Your task to perform on an android device: open app "Microsoft Outlook" (install if not already installed) Image 0: 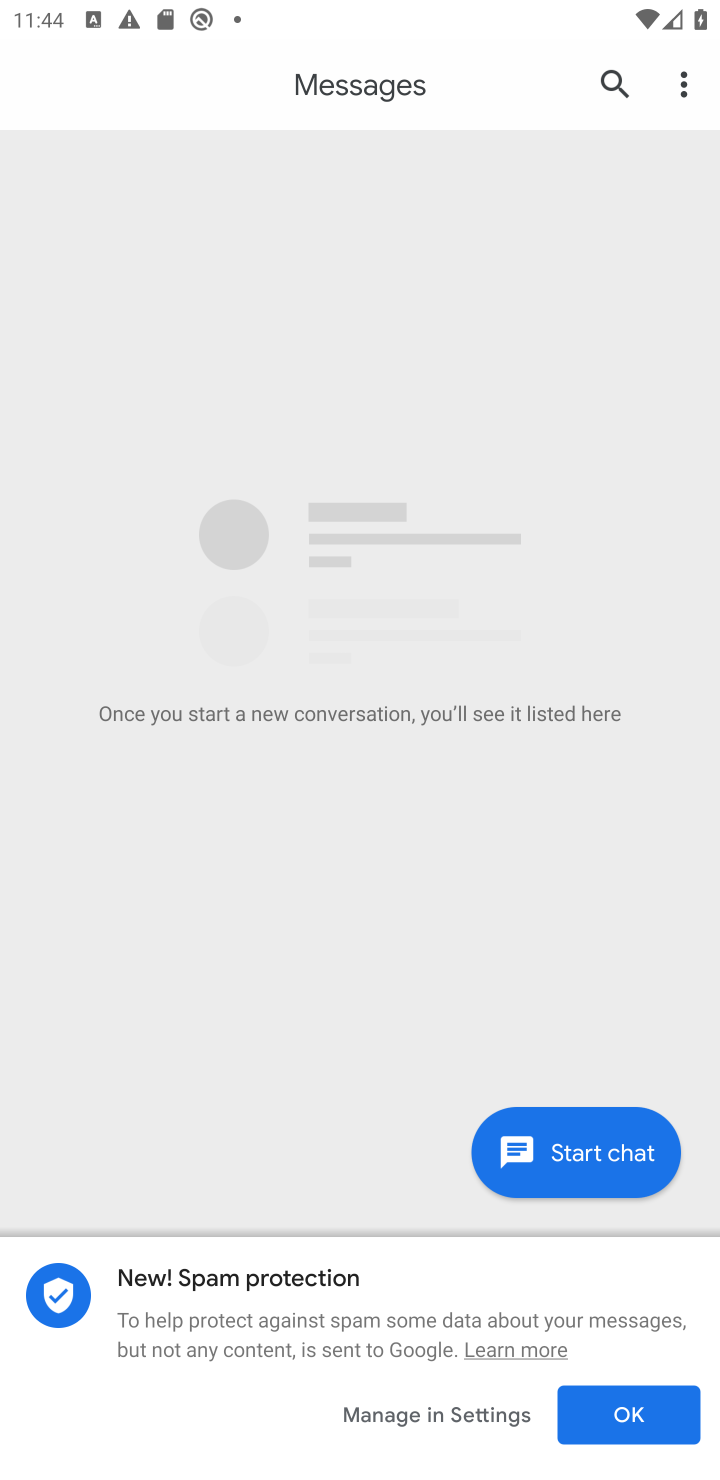
Step 0: press home button
Your task to perform on an android device: open app "Microsoft Outlook" (install if not already installed) Image 1: 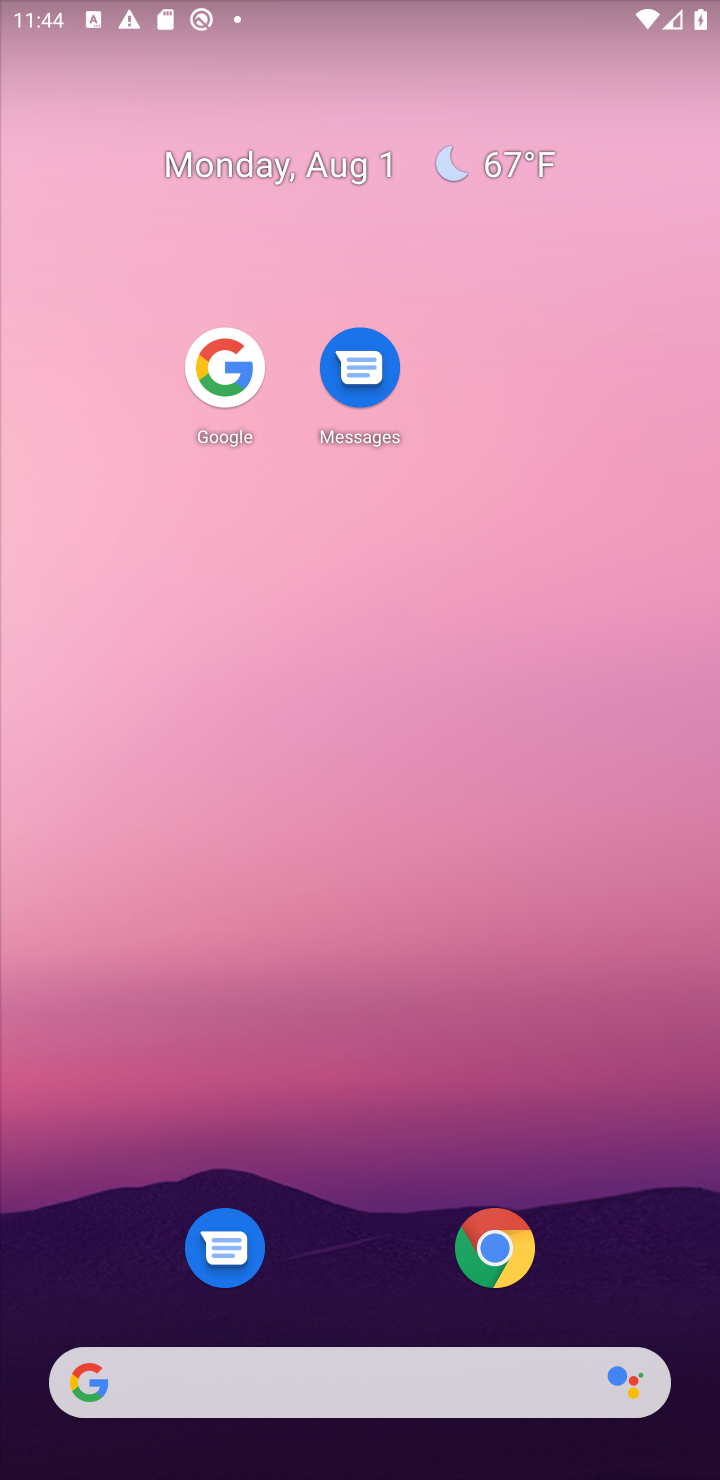
Step 1: drag from (610, 392) to (604, 293)
Your task to perform on an android device: open app "Microsoft Outlook" (install if not already installed) Image 2: 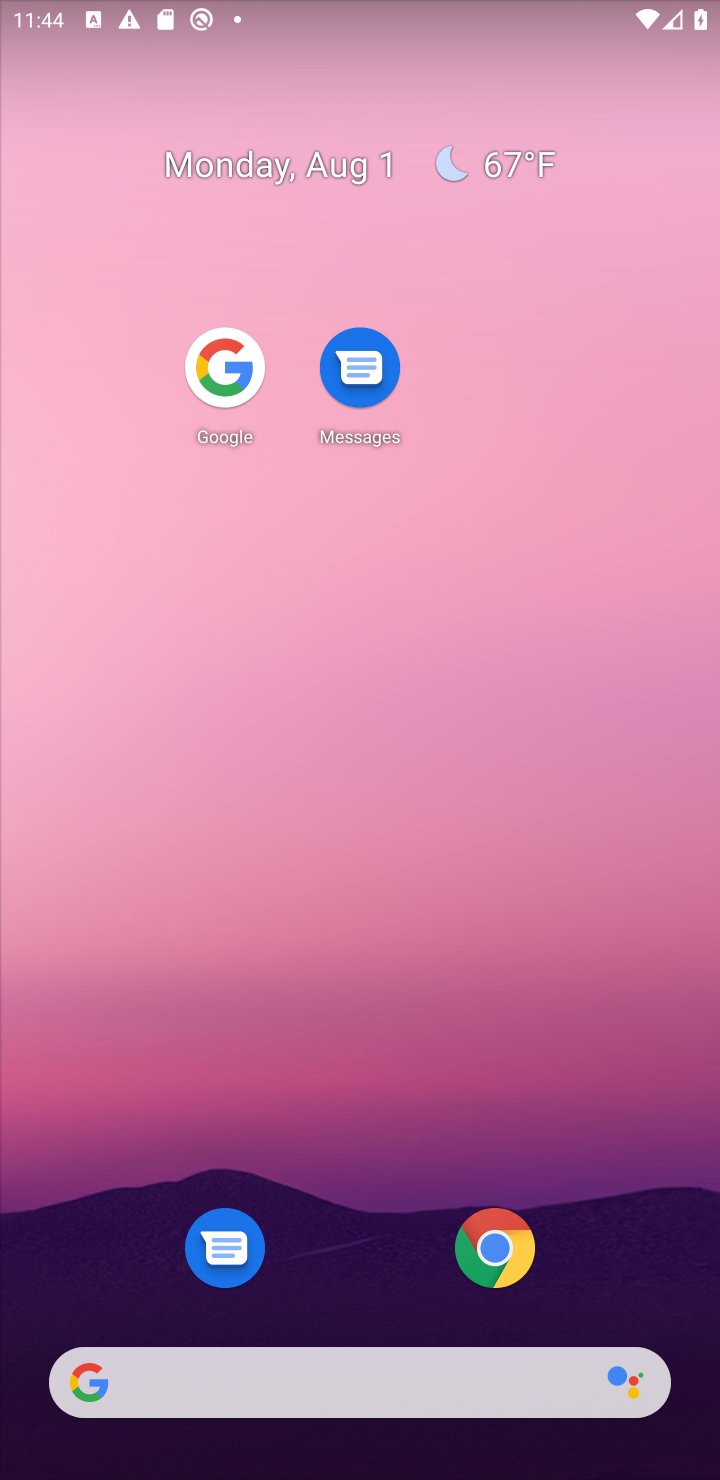
Step 2: drag from (601, 942) to (602, 25)
Your task to perform on an android device: open app "Microsoft Outlook" (install if not already installed) Image 3: 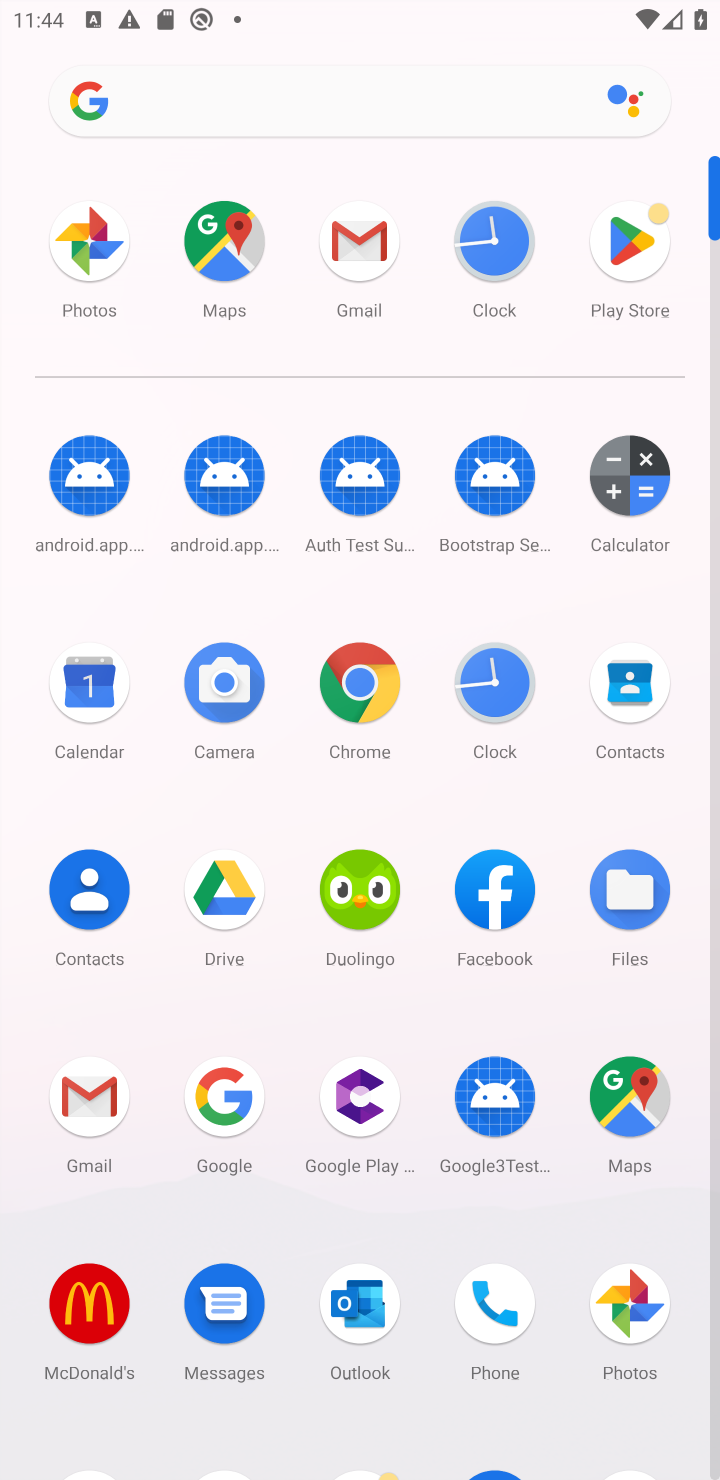
Step 3: drag from (423, 1213) to (441, 442)
Your task to perform on an android device: open app "Microsoft Outlook" (install if not already installed) Image 4: 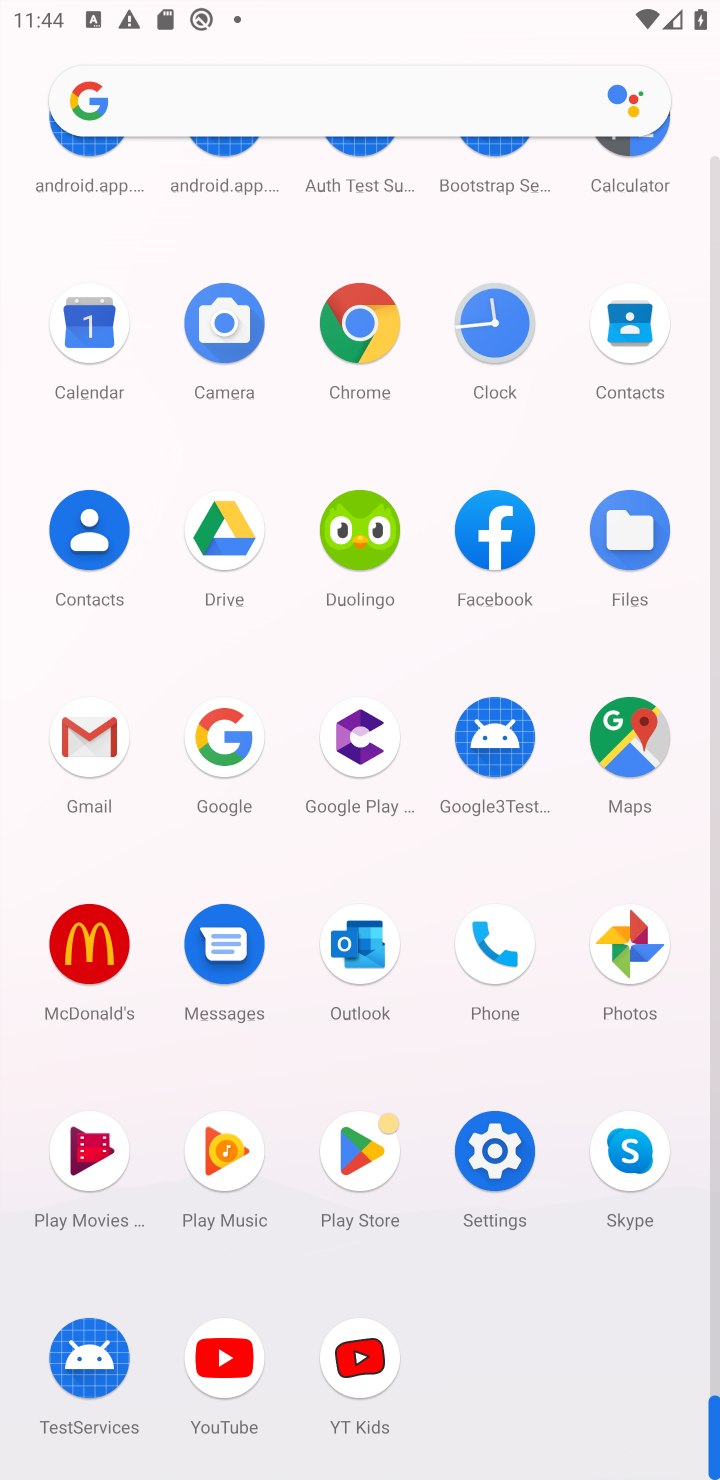
Step 4: click (371, 1128)
Your task to perform on an android device: open app "Microsoft Outlook" (install if not already installed) Image 5: 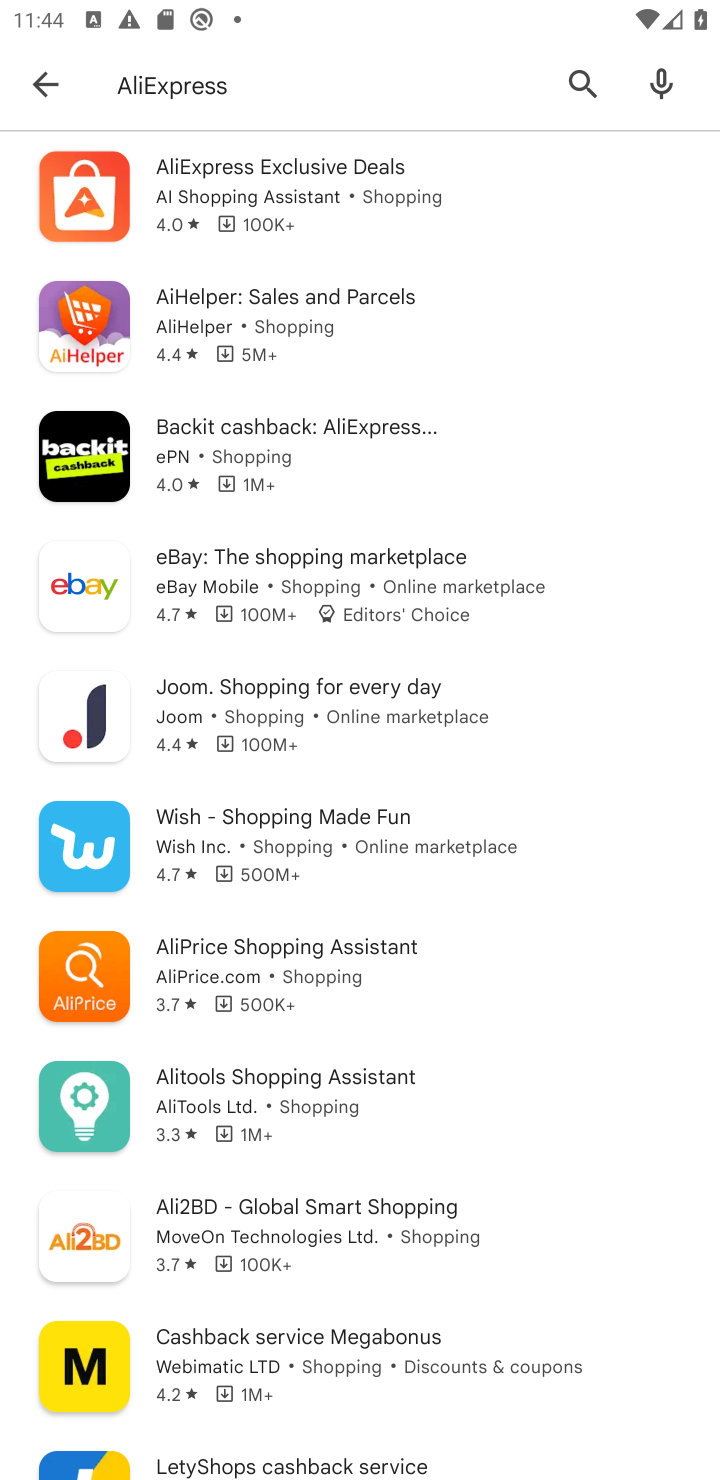
Step 5: click (329, 104)
Your task to perform on an android device: open app "Microsoft Outlook" (install if not already installed) Image 6: 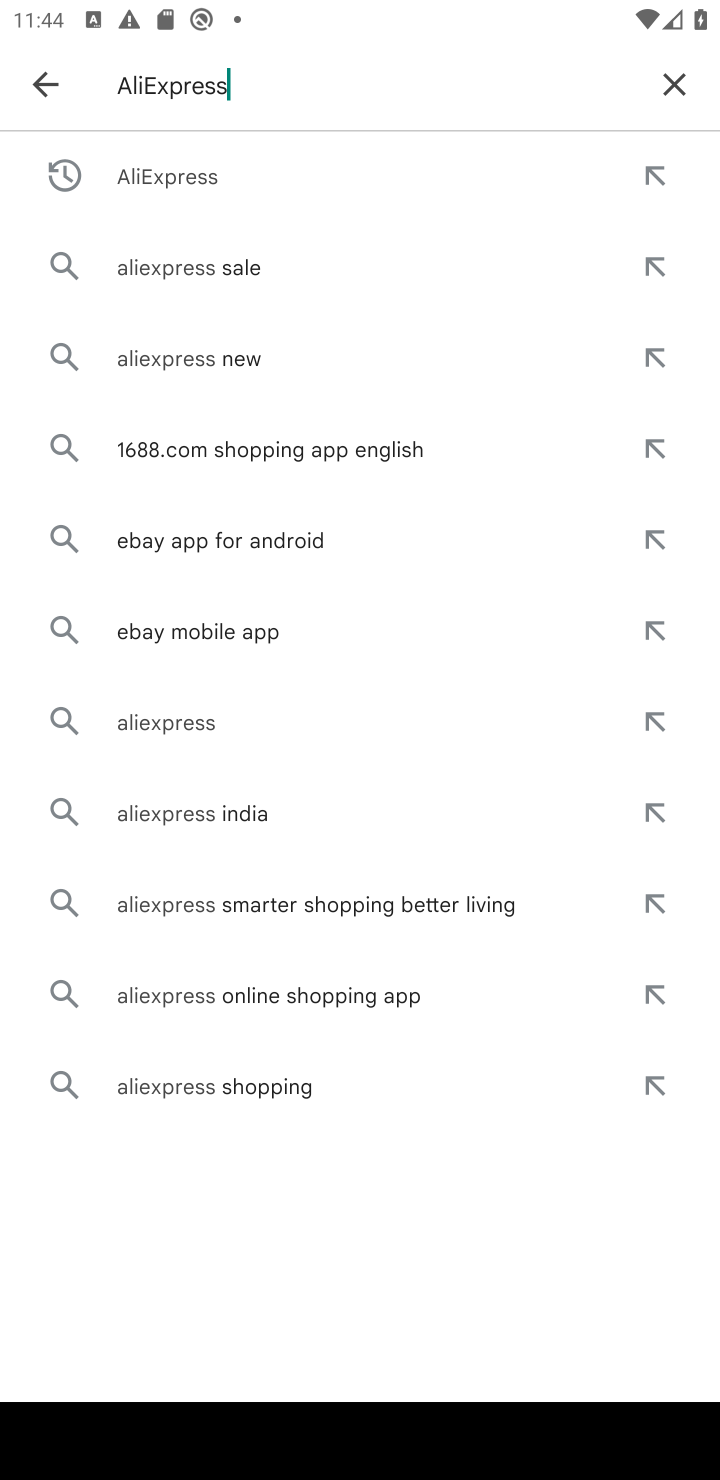
Step 6: click (679, 68)
Your task to perform on an android device: open app "Microsoft Outlook" (install if not already installed) Image 7: 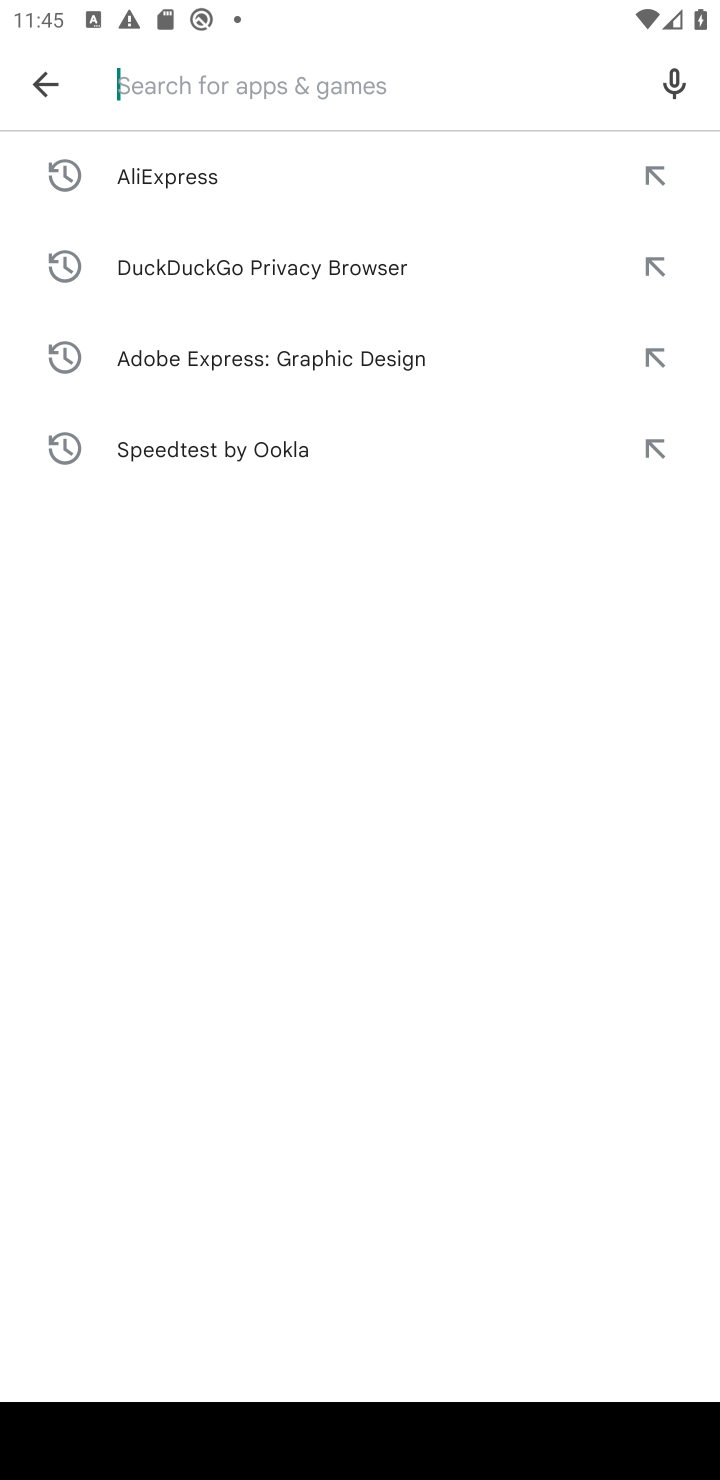
Step 7: type "Microsoft Outlook"
Your task to perform on an android device: open app "Microsoft Outlook" (install if not already installed) Image 8: 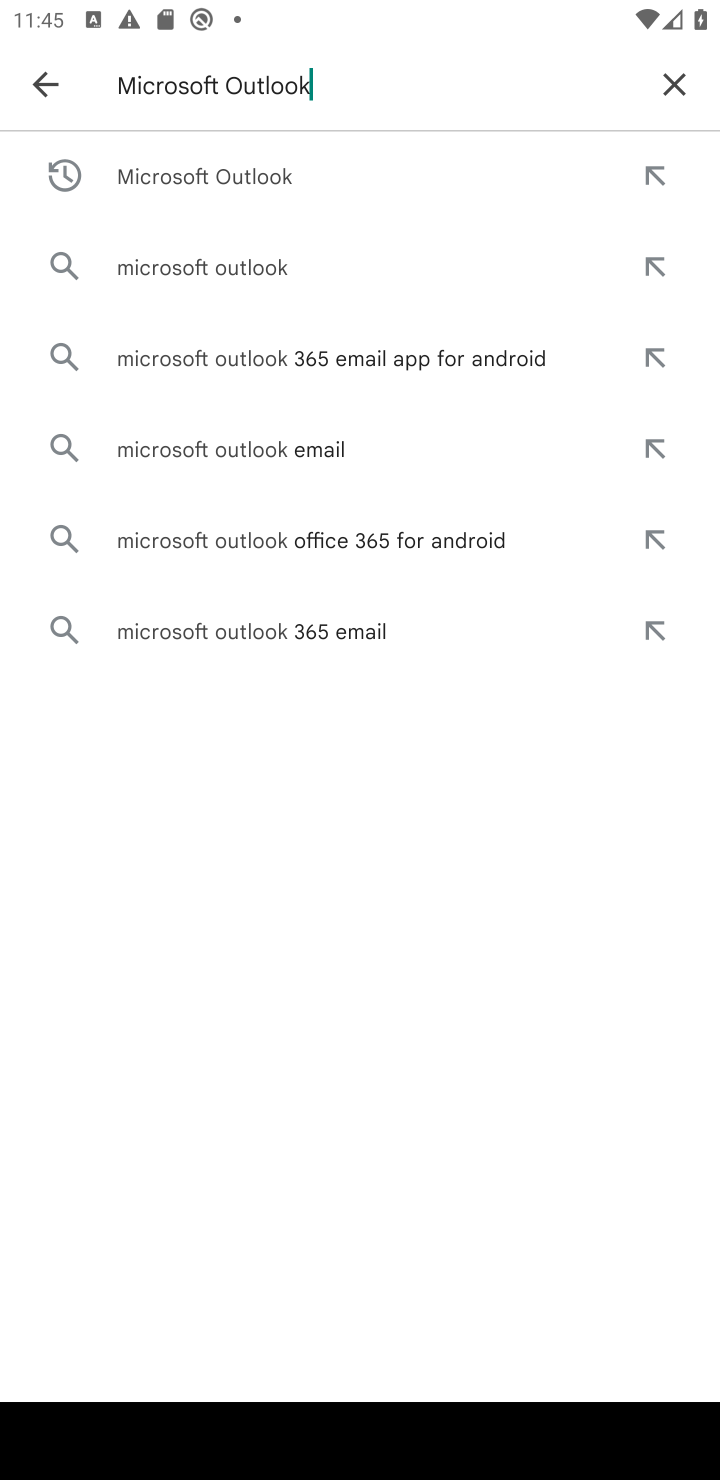
Step 8: press enter
Your task to perform on an android device: open app "Microsoft Outlook" (install if not already installed) Image 9: 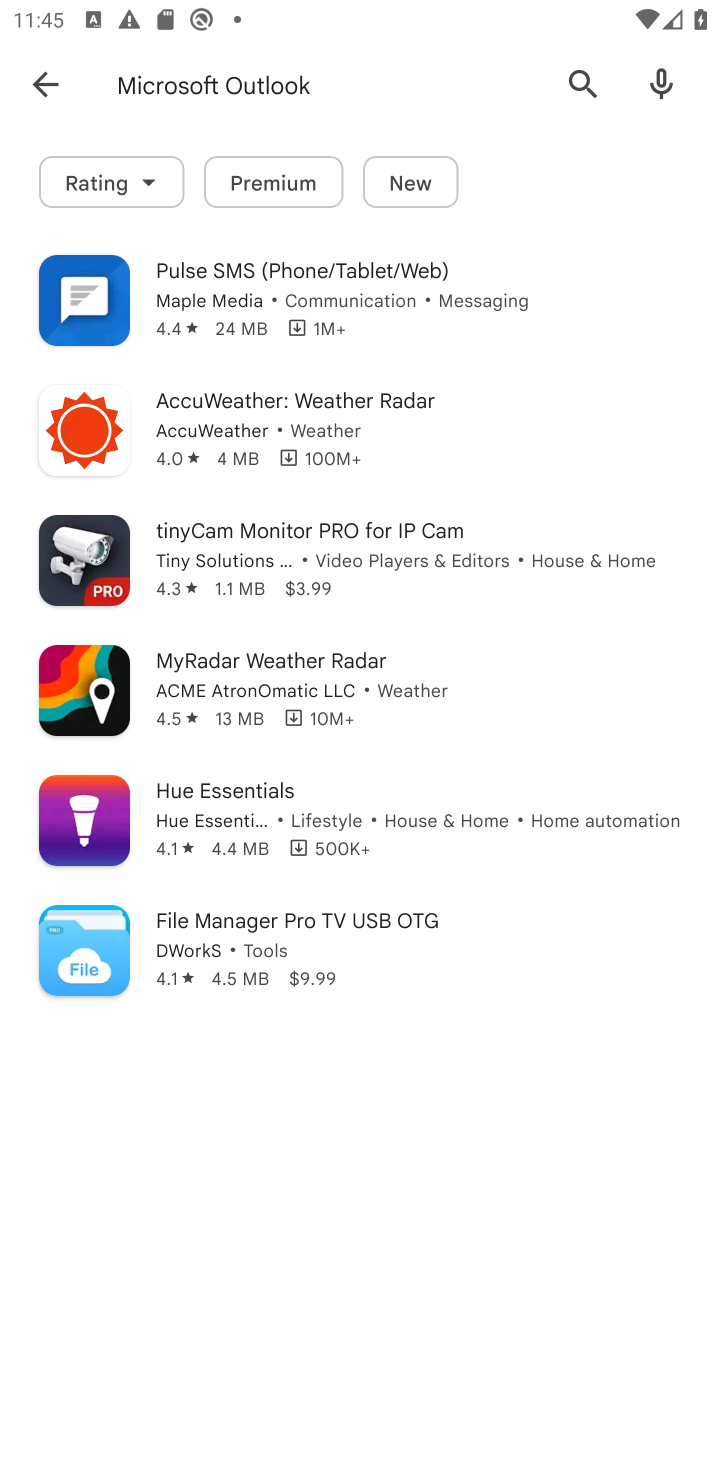
Step 9: task complete